Your task to perform on an android device: change the clock display to digital Image 0: 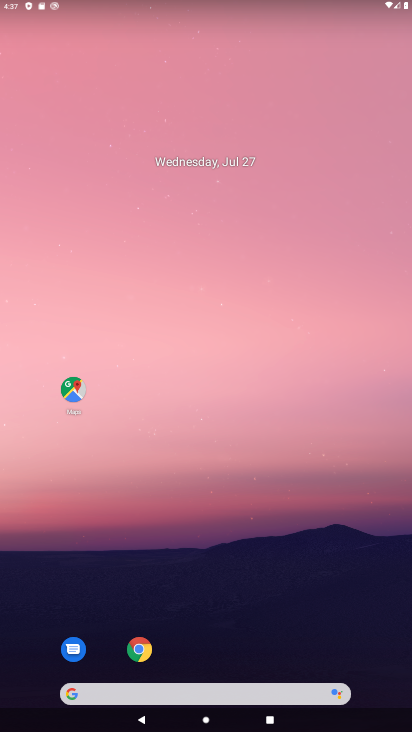
Step 0: drag from (165, 684) to (226, 15)
Your task to perform on an android device: change the clock display to digital Image 1: 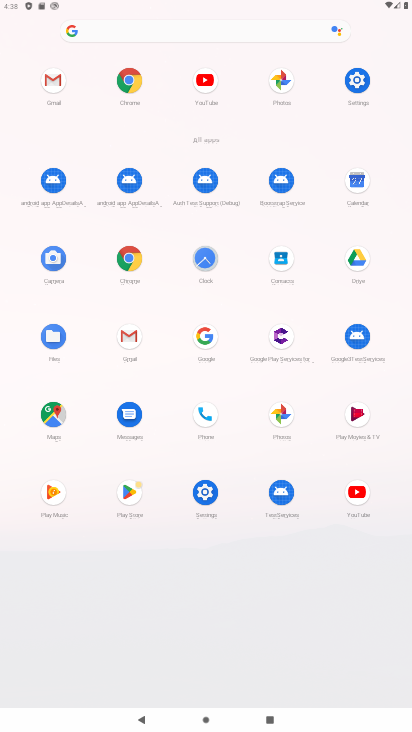
Step 1: click (206, 257)
Your task to perform on an android device: change the clock display to digital Image 2: 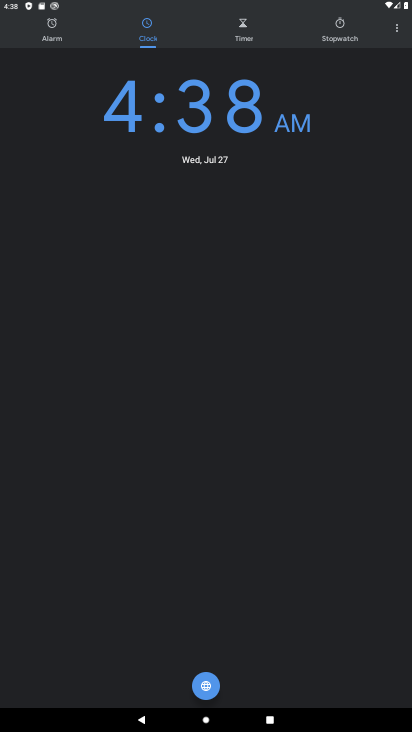
Step 2: click (398, 30)
Your task to perform on an android device: change the clock display to digital Image 3: 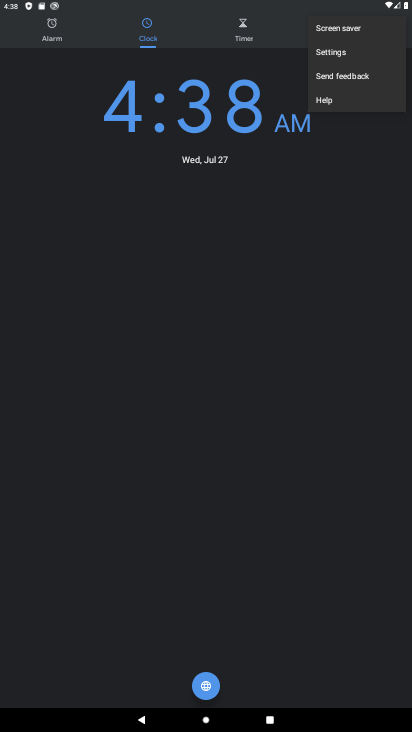
Step 3: click (336, 56)
Your task to perform on an android device: change the clock display to digital Image 4: 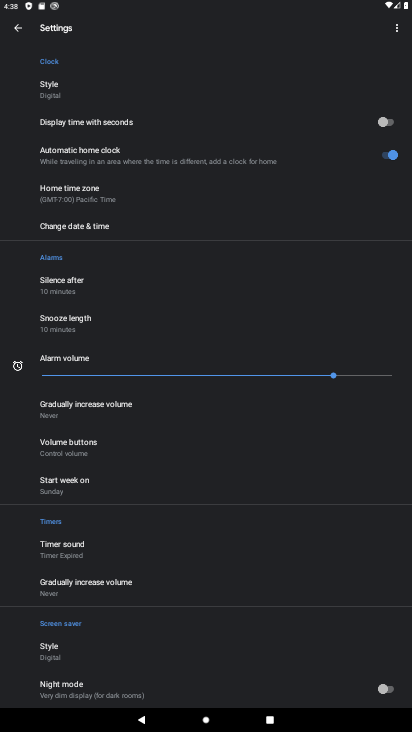
Step 4: click (73, 95)
Your task to perform on an android device: change the clock display to digital Image 5: 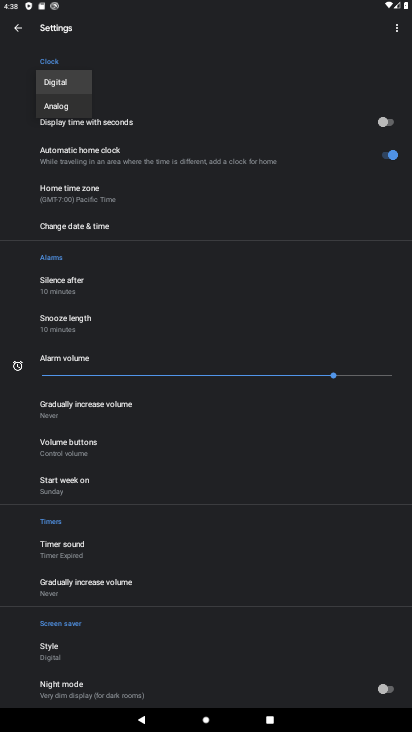
Step 5: click (67, 87)
Your task to perform on an android device: change the clock display to digital Image 6: 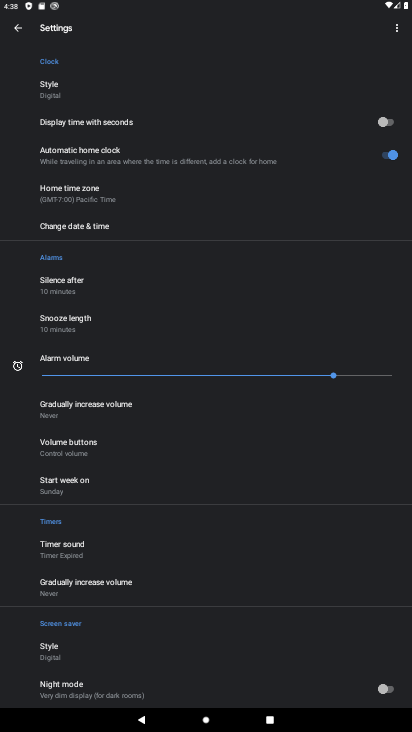
Step 6: task complete